Your task to perform on an android device: star an email in the gmail app Image 0: 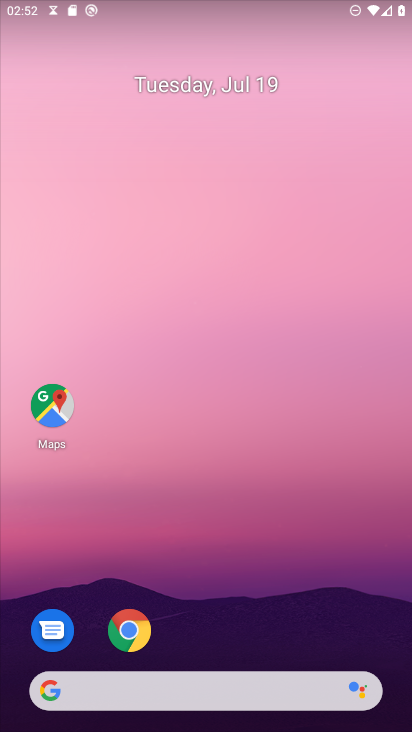
Step 0: drag from (175, 692) to (325, 245)
Your task to perform on an android device: star an email in the gmail app Image 1: 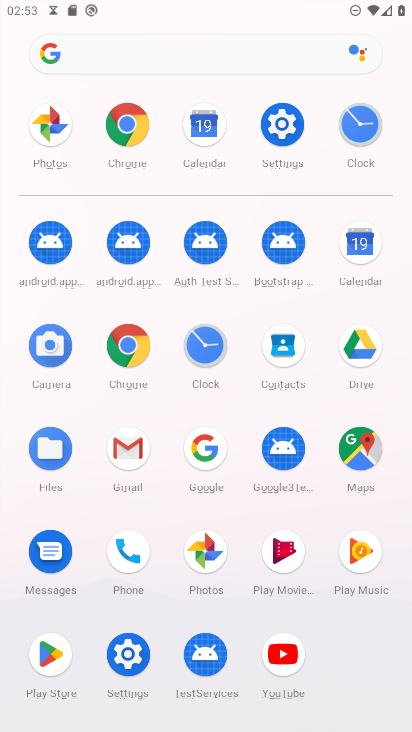
Step 1: click (122, 459)
Your task to perform on an android device: star an email in the gmail app Image 2: 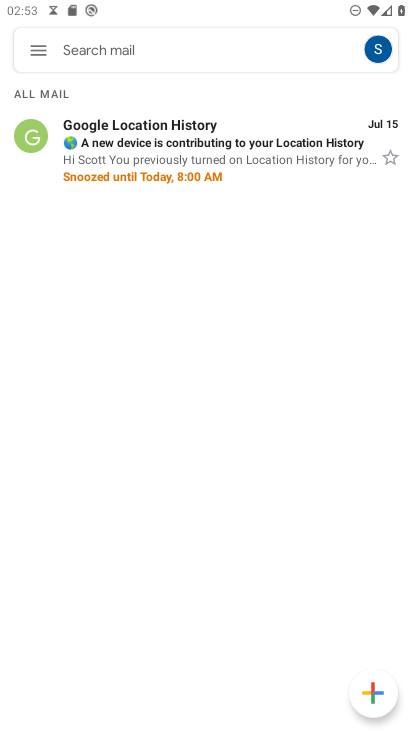
Step 2: click (32, 137)
Your task to perform on an android device: star an email in the gmail app Image 3: 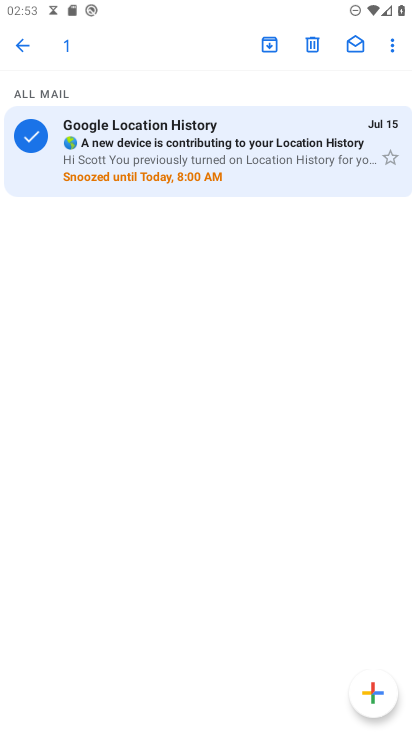
Step 3: click (391, 44)
Your task to perform on an android device: star an email in the gmail app Image 4: 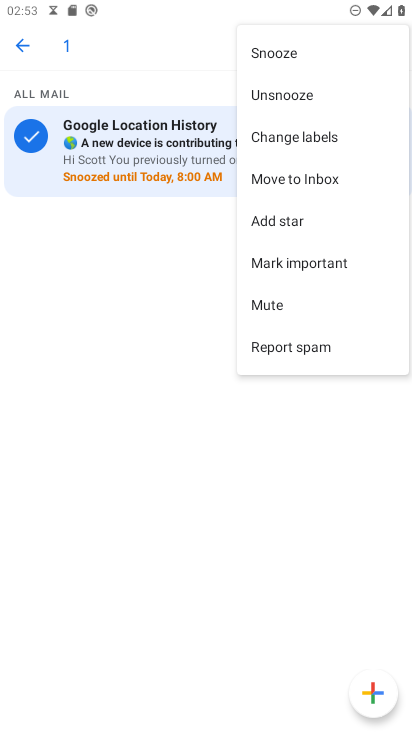
Step 4: click (278, 215)
Your task to perform on an android device: star an email in the gmail app Image 5: 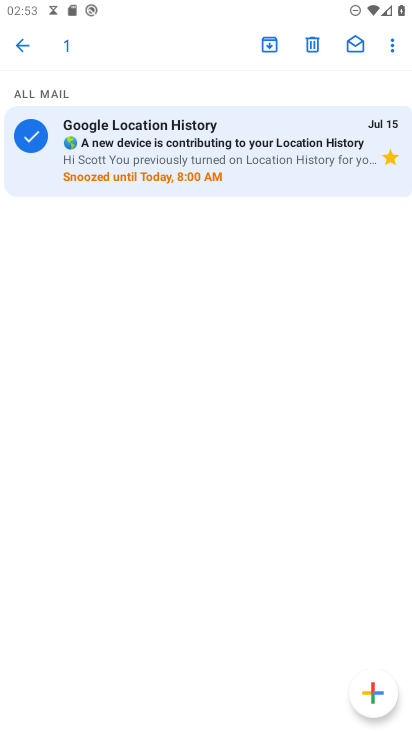
Step 5: task complete